Your task to perform on an android device: Open display settings Image 0: 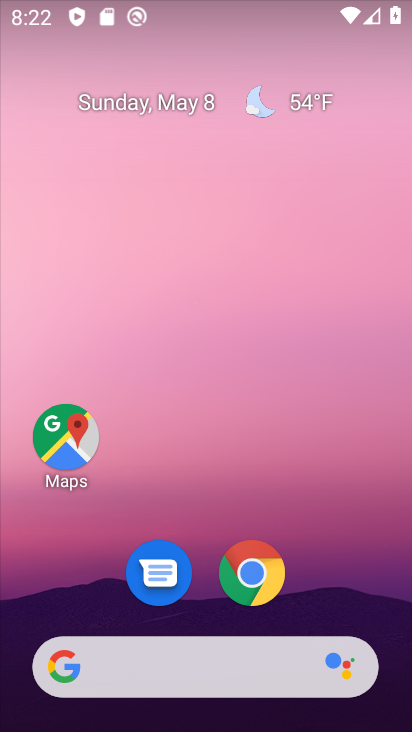
Step 0: drag from (213, 731) to (216, 235)
Your task to perform on an android device: Open display settings Image 1: 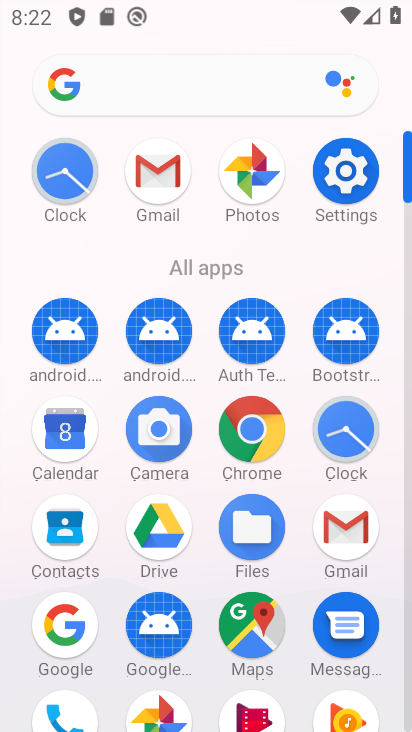
Step 1: click (345, 159)
Your task to perform on an android device: Open display settings Image 2: 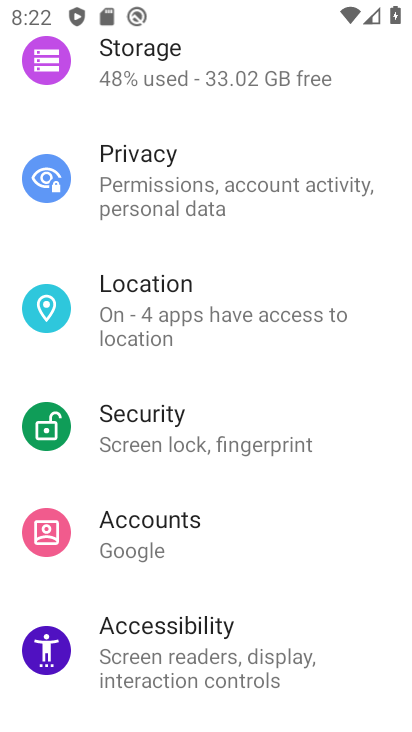
Step 2: drag from (224, 129) to (298, 569)
Your task to perform on an android device: Open display settings Image 3: 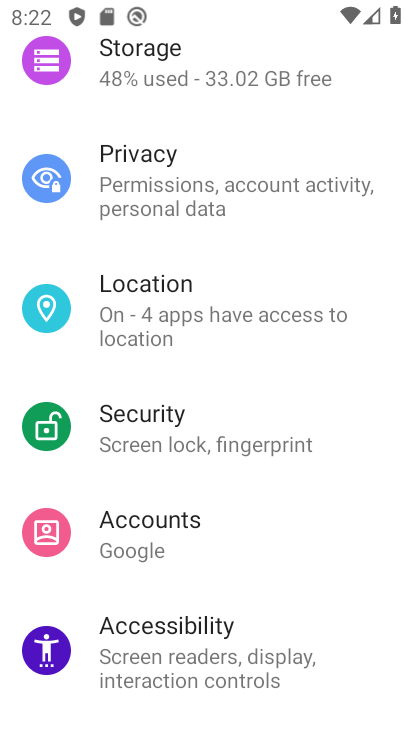
Step 3: drag from (218, 167) to (227, 628)
Your task to perform on an android device: Open display settings Image 4: 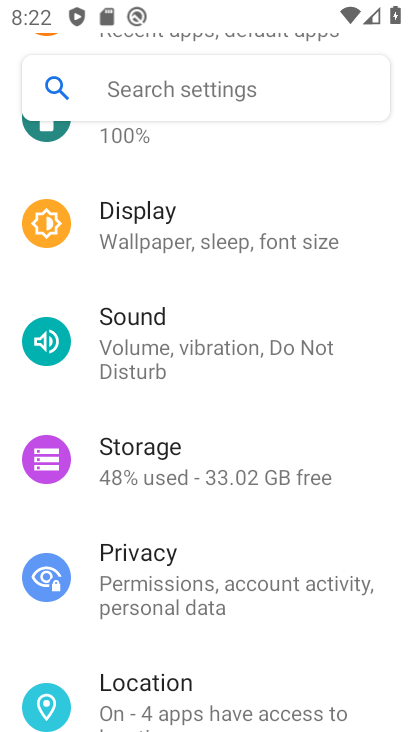
Step 4: click (149, 229)
Your task to perform on an android device: Open display settings Image 5: 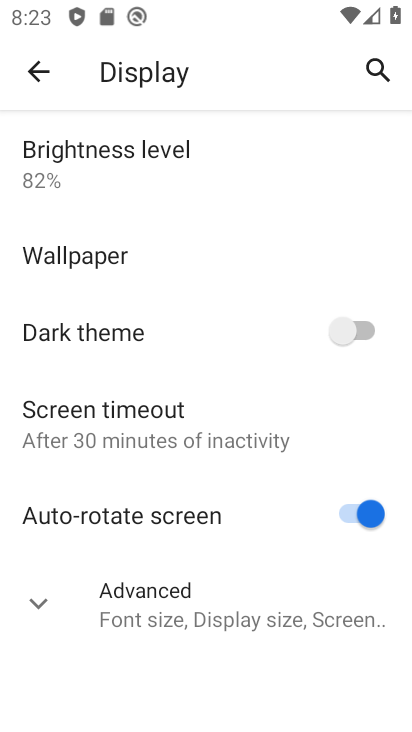
Step 5: task complete